Your task to perform on an android device: Open settings Image 0: 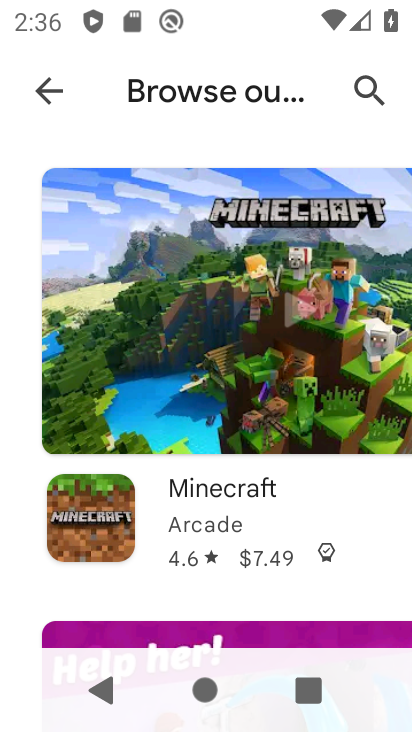
Step 0: press home button
Your task to perform on an android device: Open settings Image 1: 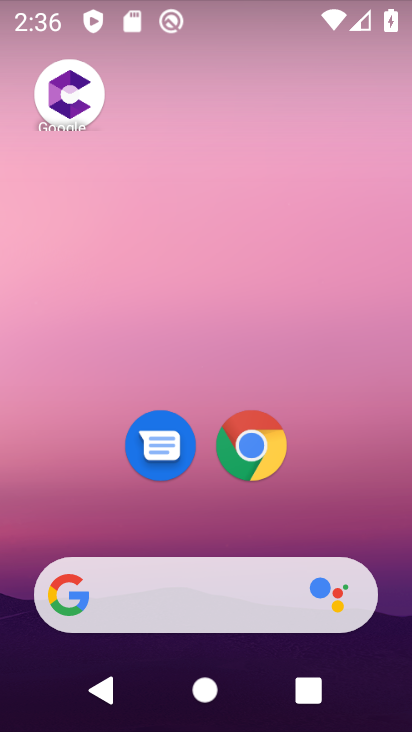
Step 1: drag from (368, 532) to (364, 2)
Your task to perform on an android device: Open settings Image 2: 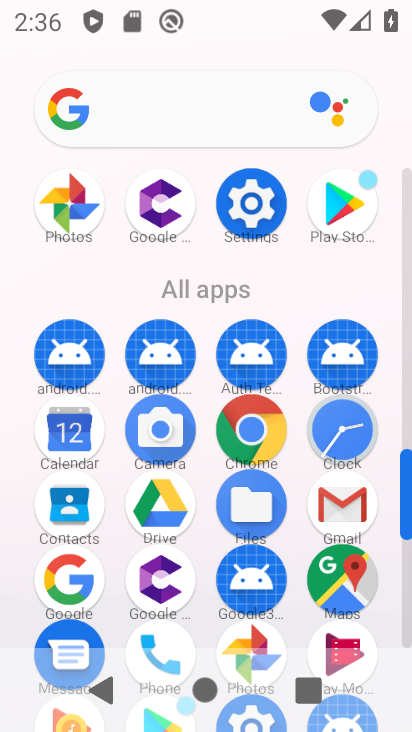
Step 2: click (253, 204)
Your task to perform on an android device: Open settings Image 3: 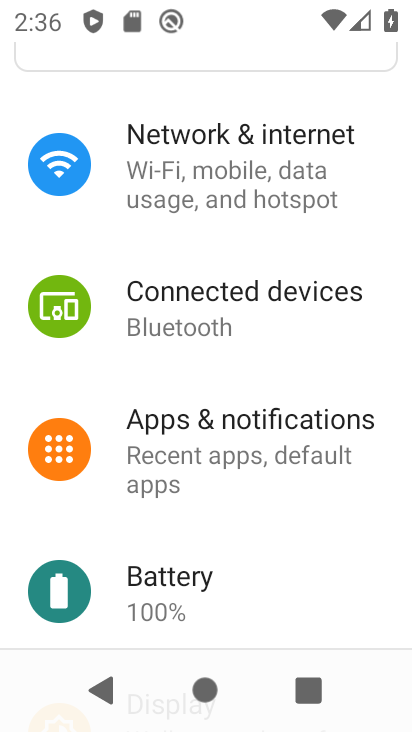
Step 3: task complete